Your task to perform on an android device: Clear all items from cart on costco.com. Search for asus zenbook on costco.com, select the first entry, and add it to the cart. Image 0: 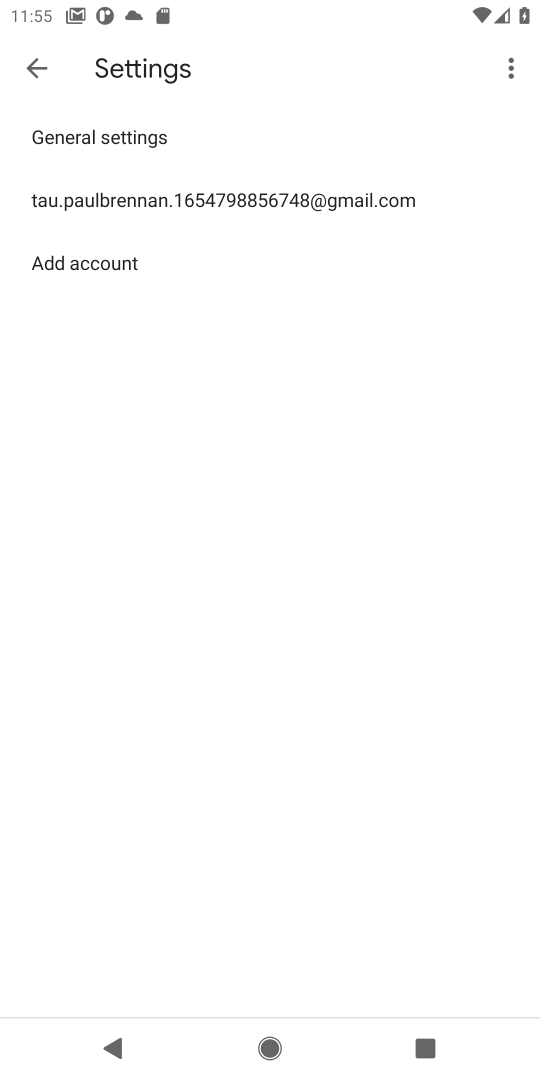
Step 0: press home button
Your task to perform on an android device: Clear all items from cart on costco.com. Search for asus zenbook on costco.com, select the first entry, and add it to the cart. Image 1: 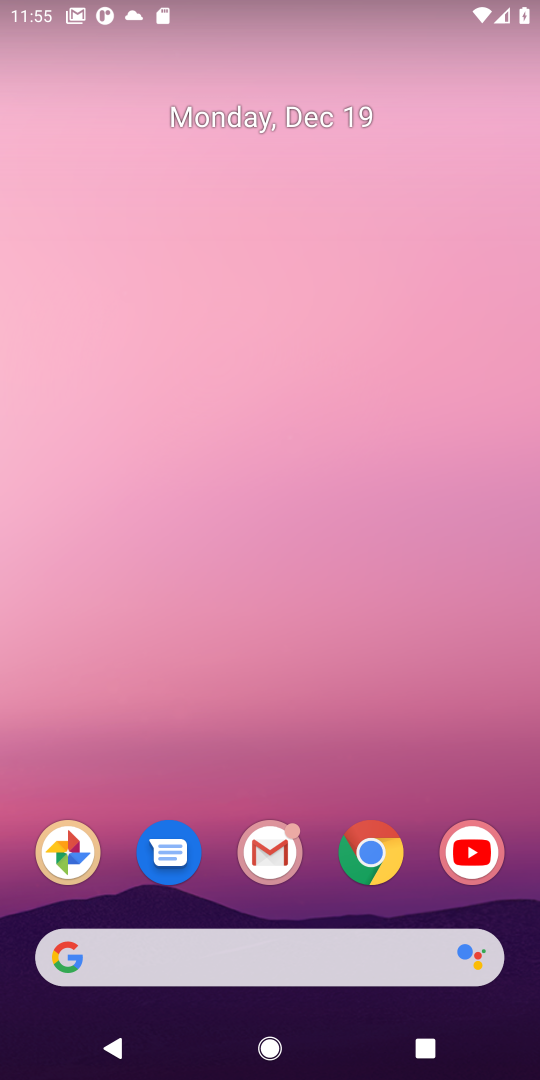
Step 1: click (374, 854)
Your task to perform on an android device: Clear all items from cart on costco.com. Search for asus zenbook on costco.com, select the first entry, and add it to the cart. Image 2: 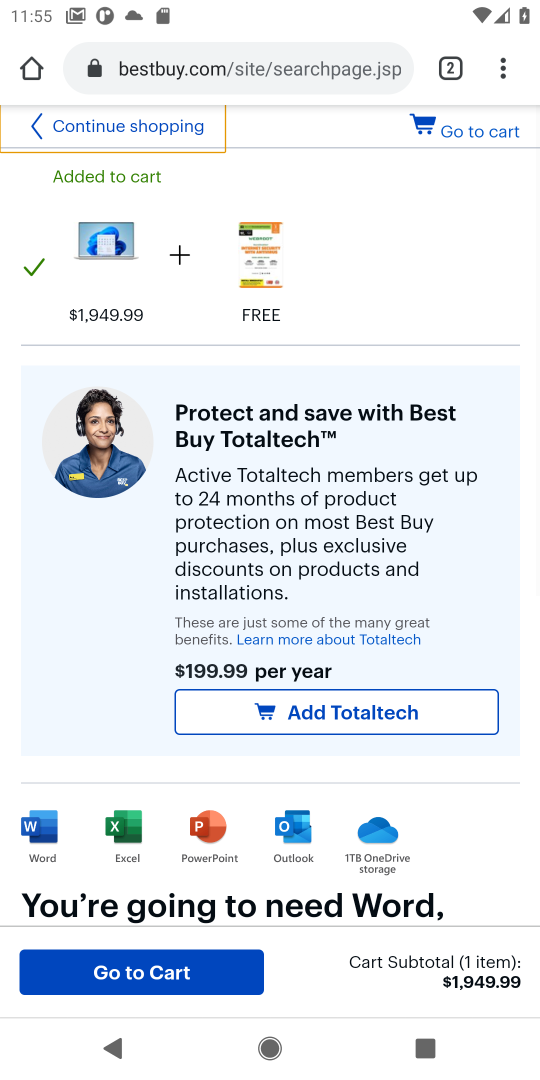
Step 2: click (232, 77)
Your task to perform on an android device: Clear all items from cart on costco.com. Search for asus zenbook on costco.com, select the first entry, and add it to the cart. Image 3: 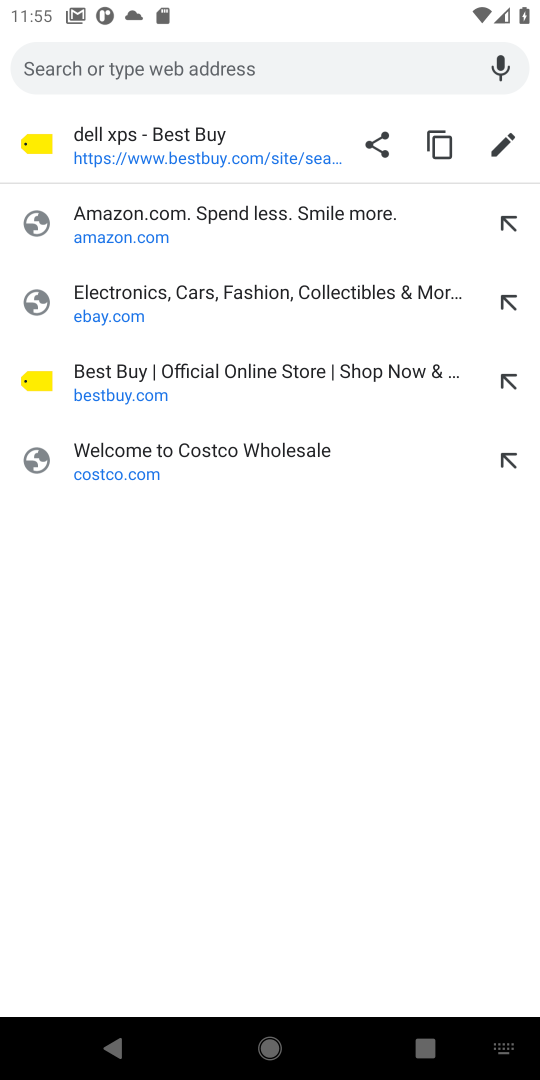
Step 3: click (90, 459)
Your task to perform on an android device: Clear all items from cart on costco.com. Search for asus zenbook on costco.com, select the first entry, and add it to the cart. Image 4: 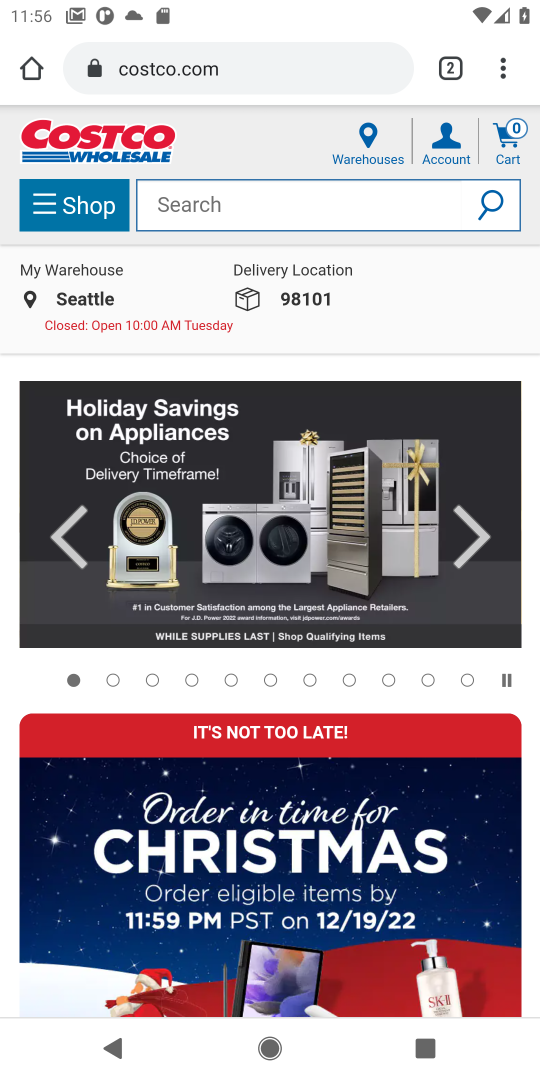
Step 4: click (512, 141)
Your task to perform on an android device: Clear all items from cart on costco.com. Search for asus zenbook on costco.com, select the first entry, and add it to the cart. Image 5: 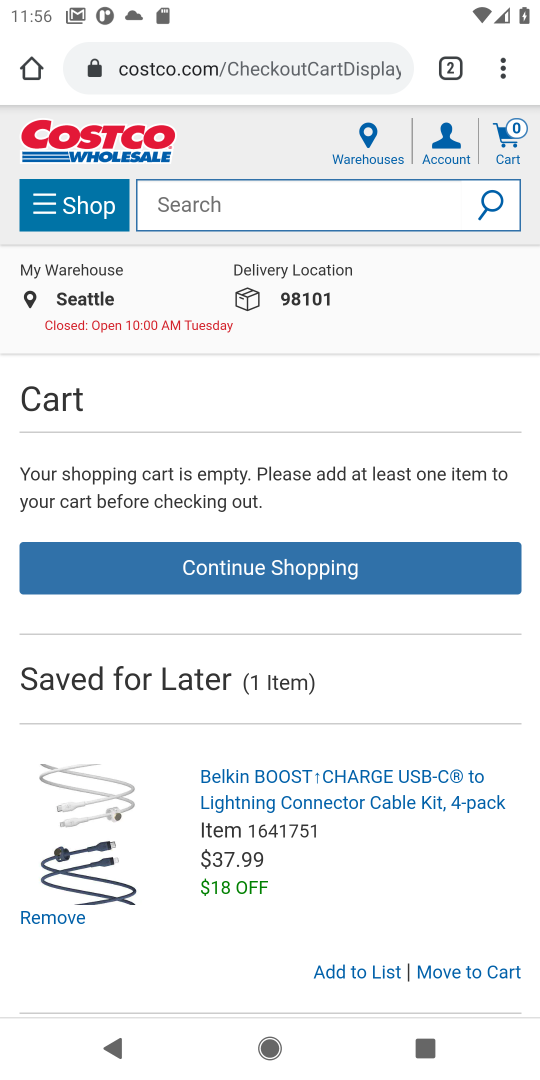
Step 5: click (169, 212)
Your task to perform on an android device: Clear all items from cart on costco.com. Search for asus zenbook on costco.com, select the first entry, and add it to the cart. Image 6: 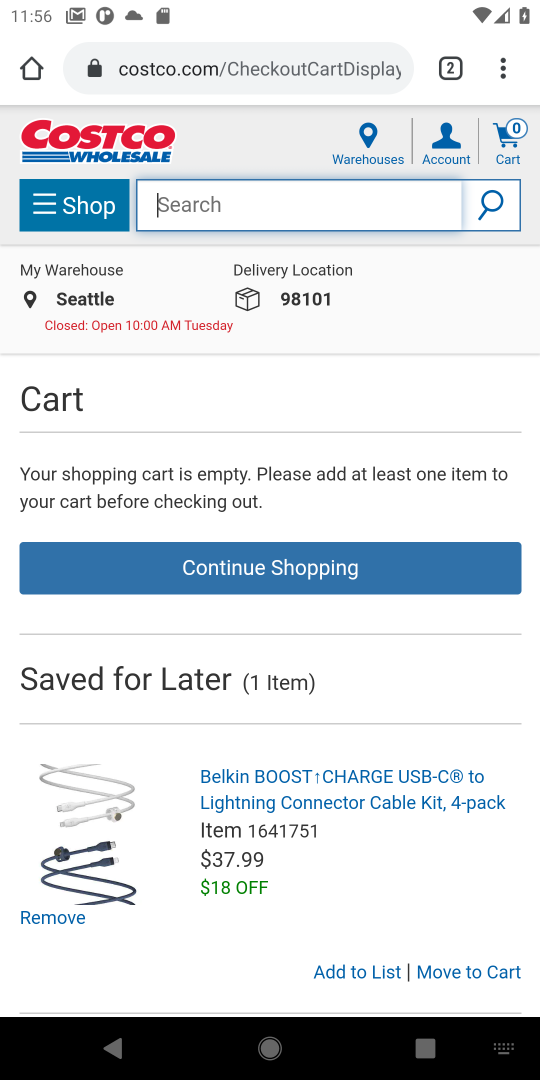
Step 6: type "asus zenbook"
Your task to perform on an android device: Clear all items from cart on costco.com. Search for asus zenbook on costco.com, select the first entry, and add it to the cart. Image 7: 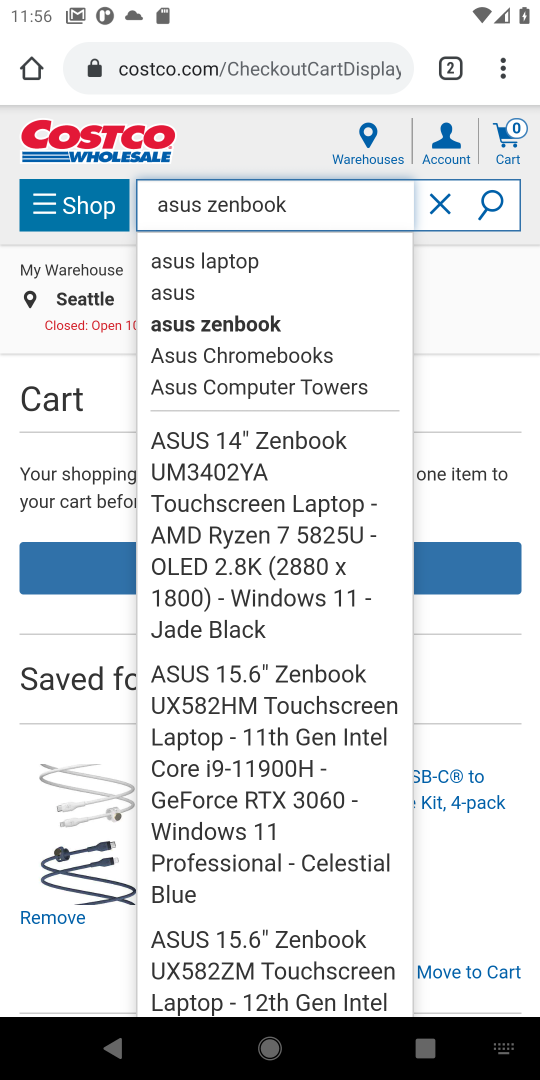
Step 7: click (485, 202)
Your task to perform on an android device: Clear all items from cart on costco.com. Search for asus zenbook on costco.com, select the first entry, and add it to the cart. Image 8: 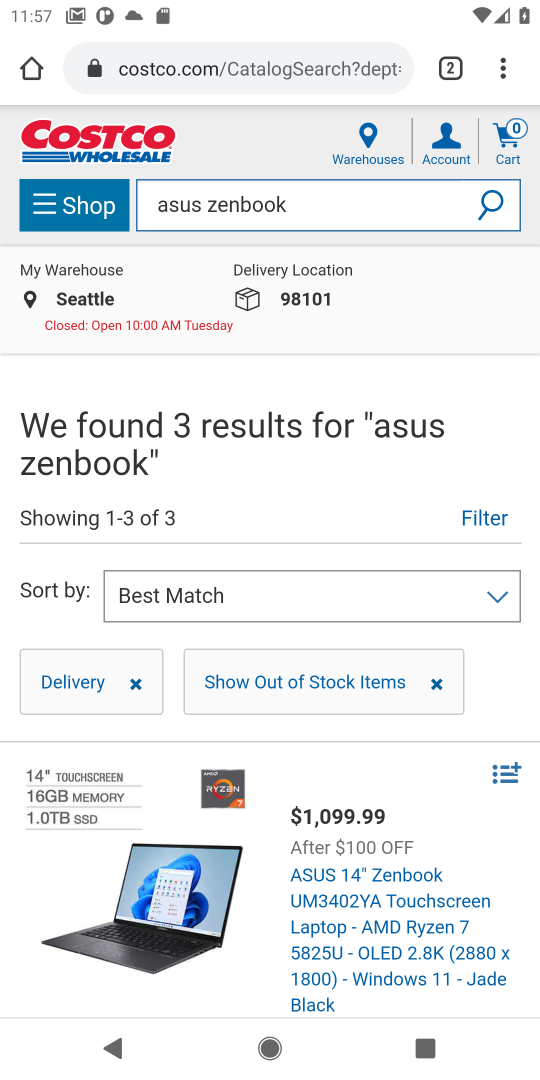
Step 8: drag from (221, 830) to (221, 457)
Your task to perform on an android device: Clear all items from cart on costco.com. Search for asus zenbook on costco.com, select the first entry, and add it to the cart. Image 9: 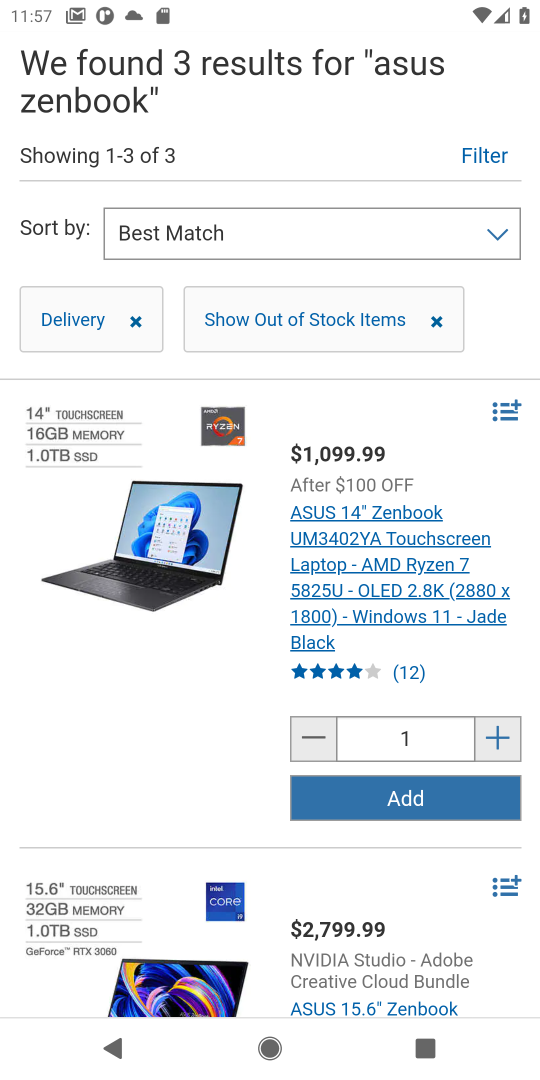
Step 9: click (389, 809)
Your task to perform on an android device: Clear all items from cart on costco.com. Search for asus zenbook on costco.com, select the first entry, and add it to the cart. Image 10: 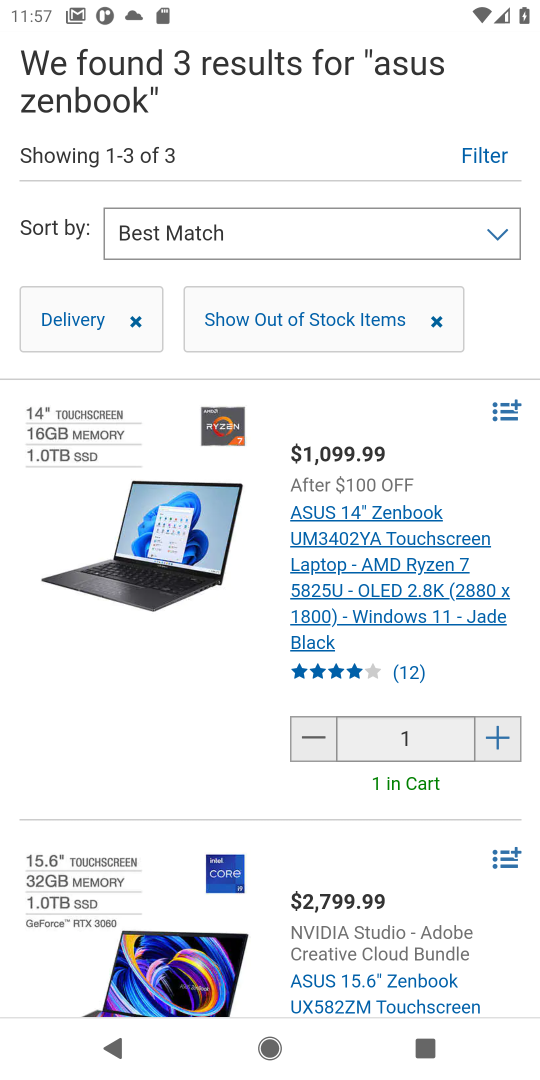
Step 10: task complete